Your task to perform on an android device: change the upload size in google photos Image 0: 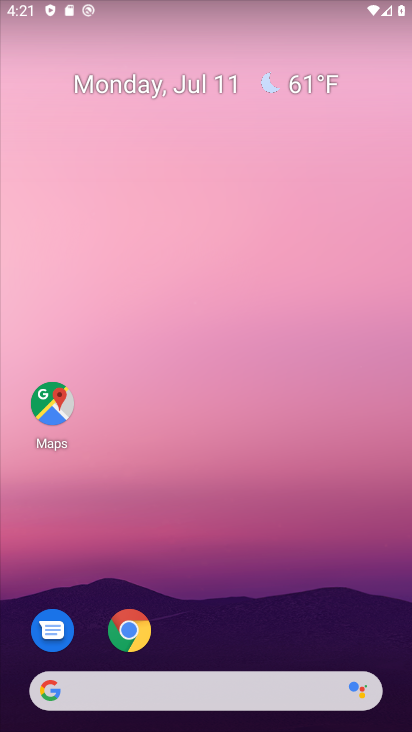
Step 0: drag from (204, 602) to (159, 4)
Your task to perform on an android device: change the upload size in google photos Image 1: 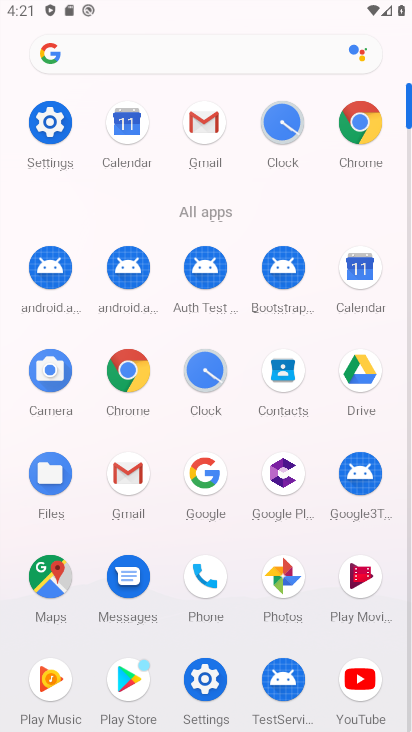
Step 1: click (288, 577)
Your task to perform on an android device: change the upload size in google photos Image 2: 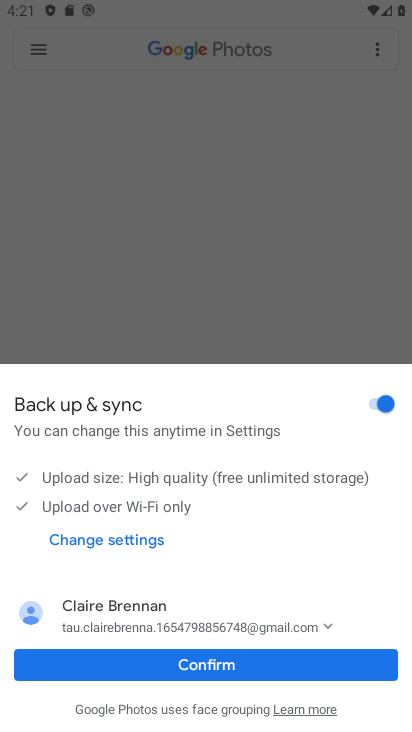
Step 2: click (201, 665)
Your task to perform on an android device: change the upload size in google photos Image 3: 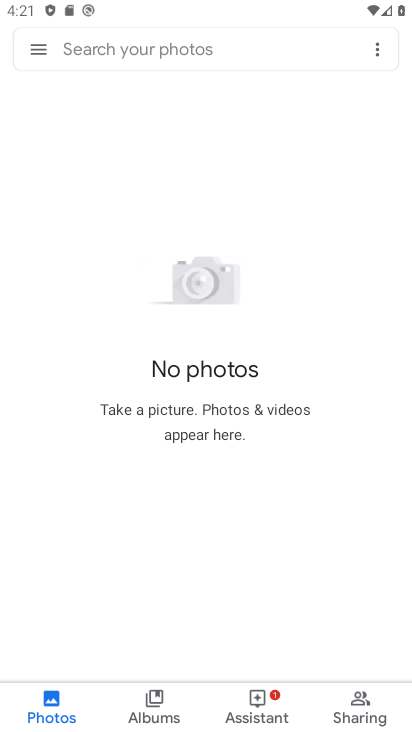
Step 3: click (371, 58)
Your task to perform on an android device: change the upload size in google photos Image 4: 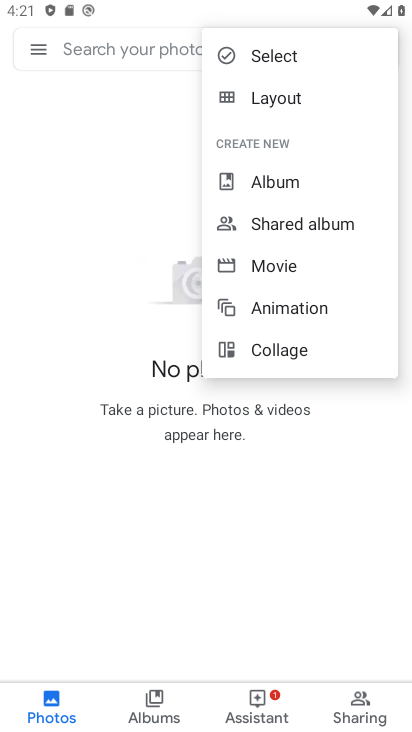
Step 4: click (78, 132)
Your task to perform on an android device: change the upload size in google photos Image 5: 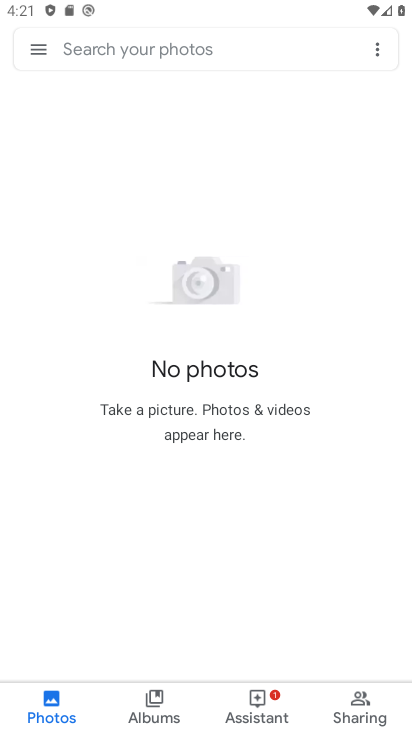
Step 5: click (27, 46)
Your task to perform on an android device: change the upload size in google photos Image 6: 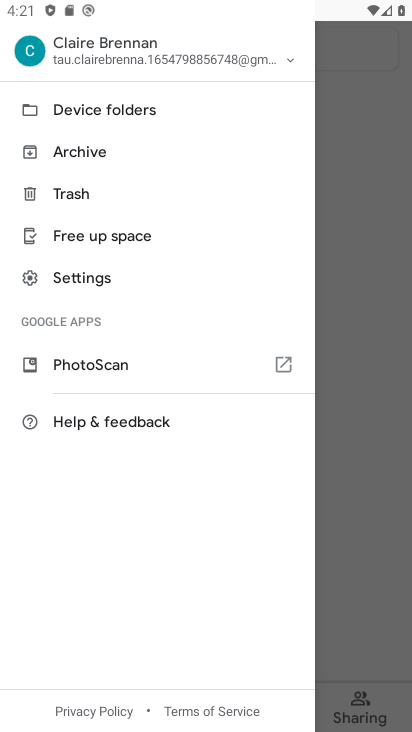
Step 6: click (80, 272)
Your task to perform on an android device: change the upload size in google photos Image 7: 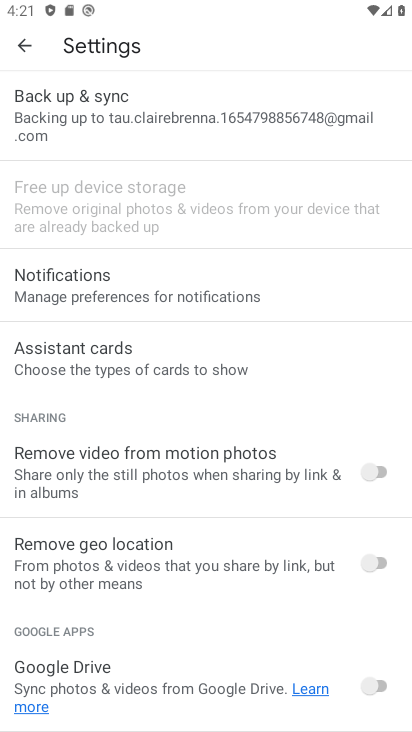
Step 7: click (74, 123)
Your task to perform on an android device: change the upload size in google photos Image 8: 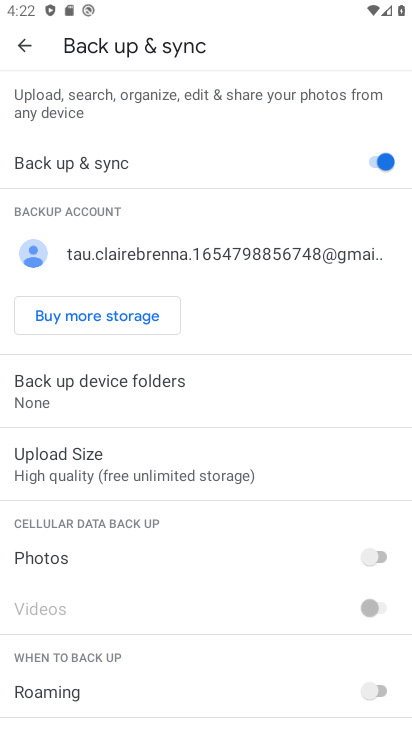
Step 8: click (132, 463)
Your task to perform on an android device: change the upload size in google photos Image 9: 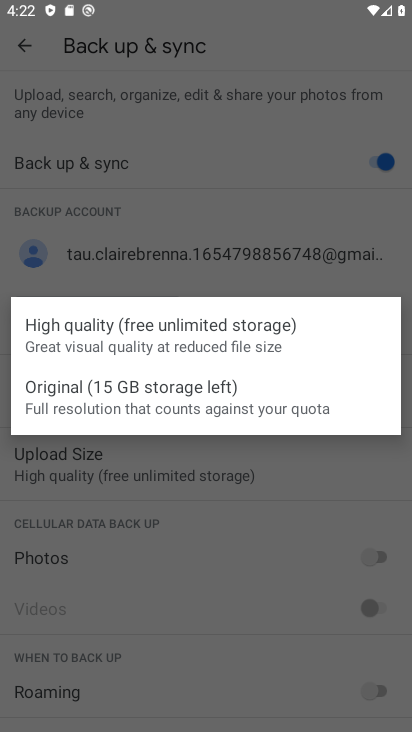
Step 9: click (95, 403)
Your task to perform on an android device: change the upload size in google photos Image 10: 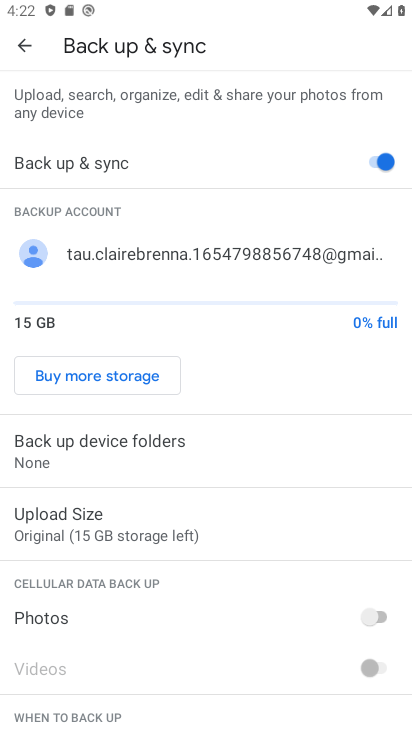
Step 10: task complete